Your task to perform on an android device: read, delete, or share a saved page in the chrome app Image 0: 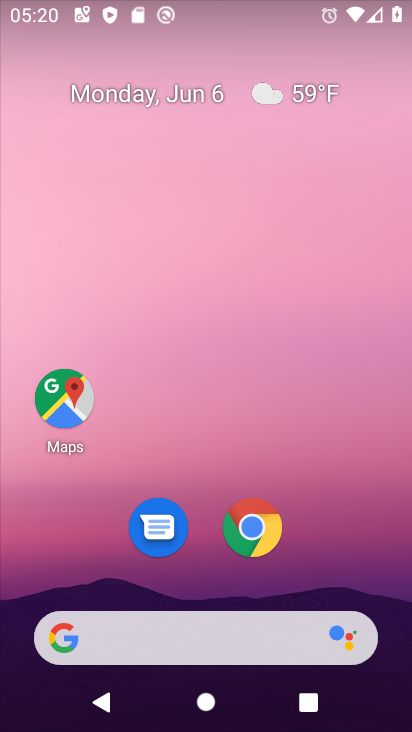
Step 0: drag from (395, 708) to (367, 93)
Your task to perform on an android device: read, delete, or share a saved page in the chrome app Image 1: 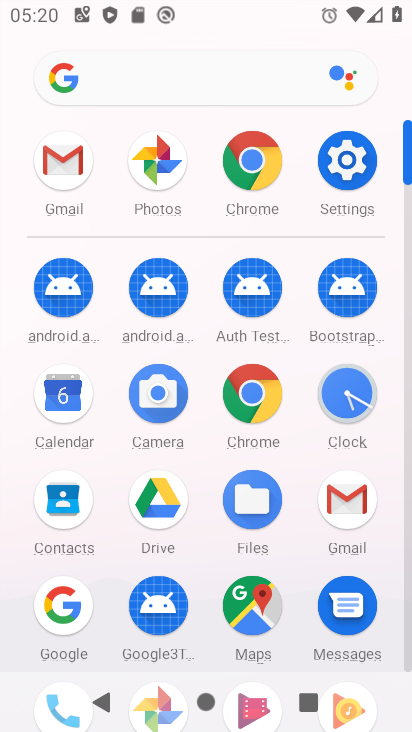
Step 1: click (256, 380)
Your task to perform on an android device: read, delete, or share a saved page in the chrome app Image 2: 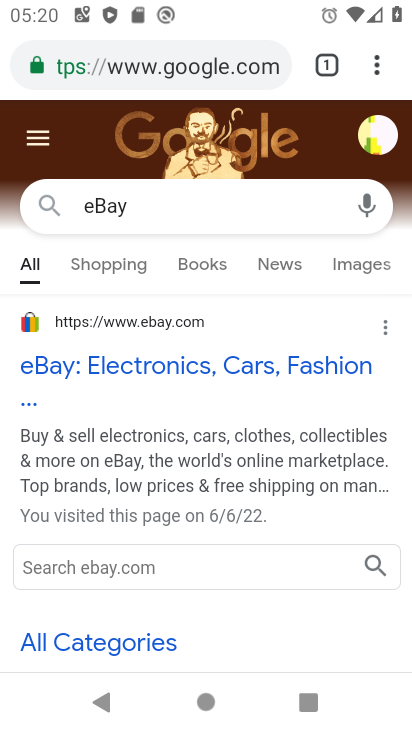
Step 2: click (376, 57)
Your task to perform on an android device: read, delete, or share a saved page in the chrome app Image 3: 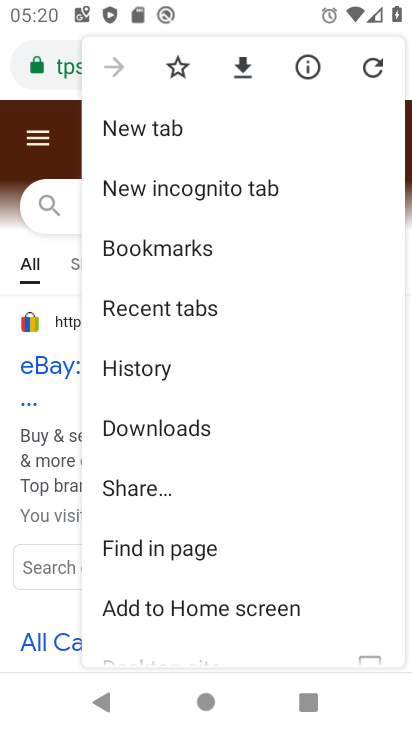
Step 3: drag from (292, 570) to (301, 211)
Your task to perform on an android device: read, delete, or share a saved page in the chrome app Image 4: 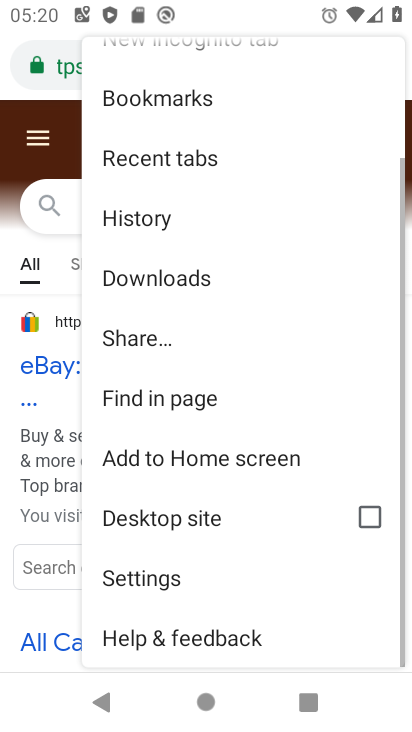
Step 4: click (130, 585)
Your task to perform on an android device: read, delete, or share a saved page in the chrome app Image 5: 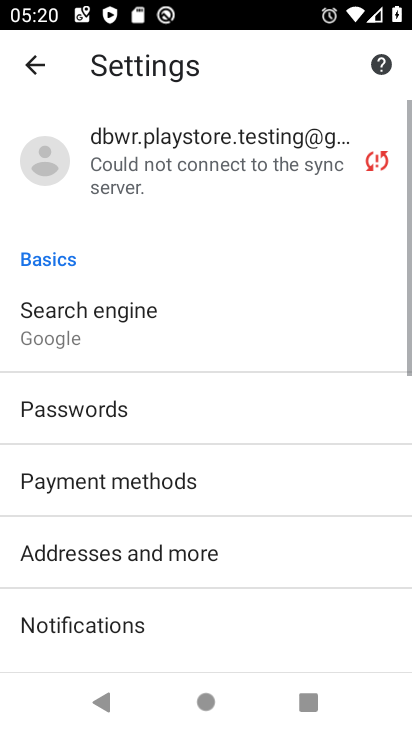
Step 5: drag from (259, 630) to (287, 215)
Your task to perform on an android device: read, delete, or share a saved page in the chrome app Image 6: 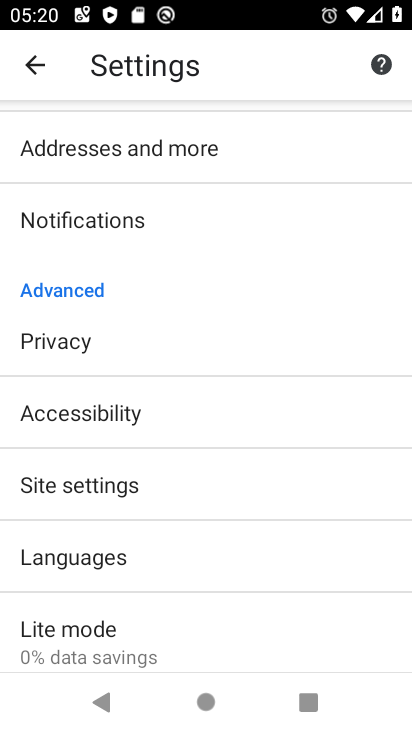
Step 6: drag from (205, 627) to (230, 317)
Your task to perform on an android device: read, delete, or share a saved page in the chrome app Image 7: 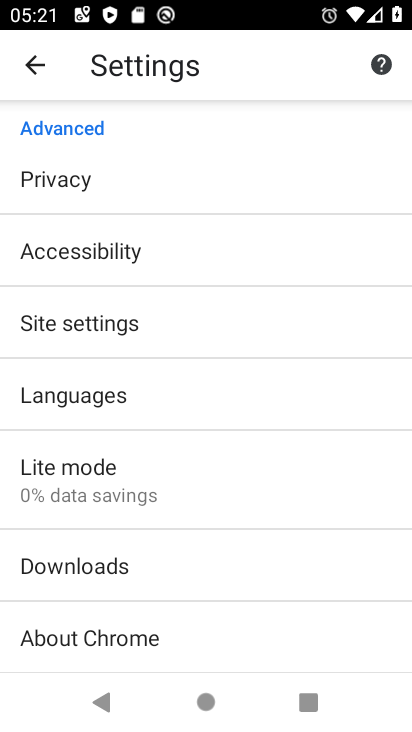
Step 7: click (36, 65)
Your task to perform on an android device: read, delete, or share a saved page in the chrome app Image 8: 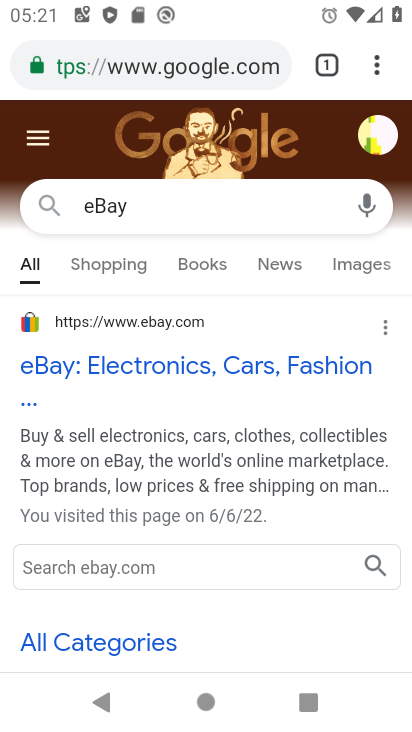
Step 8: click (374, 68)
Your task to perform on an android device: read, delete, or share a saved page in the chrome app Image 9: 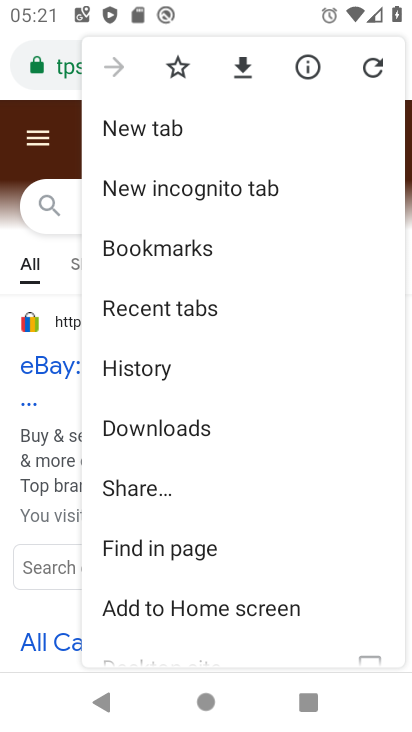
Step 9: click (132, 425)
Your task to perform on an android device: read, delete, or share a saved page in the chrome app Image 10: 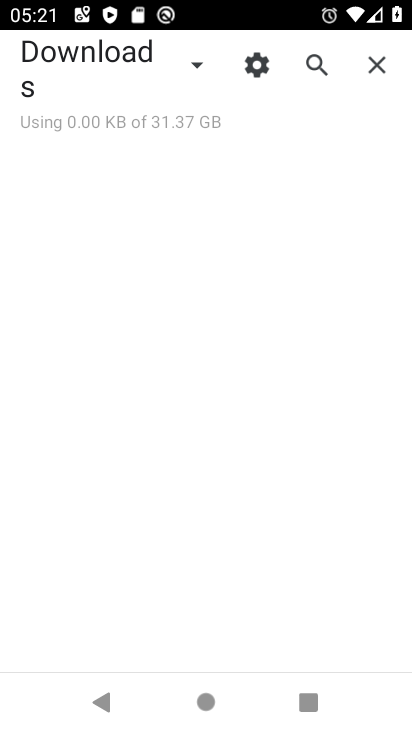
Step 10: task complete